Your task to perform on an android device: install app "Messenger Lite" Image 0: 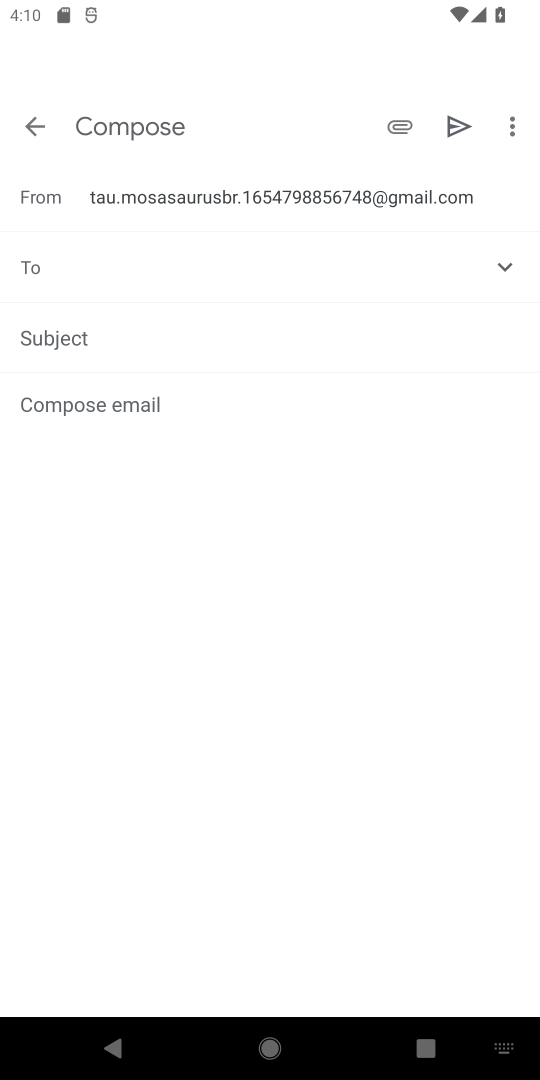
Step 0: press home button
Your task to perform on an android device: install app "Messenger Lite" Image 1: 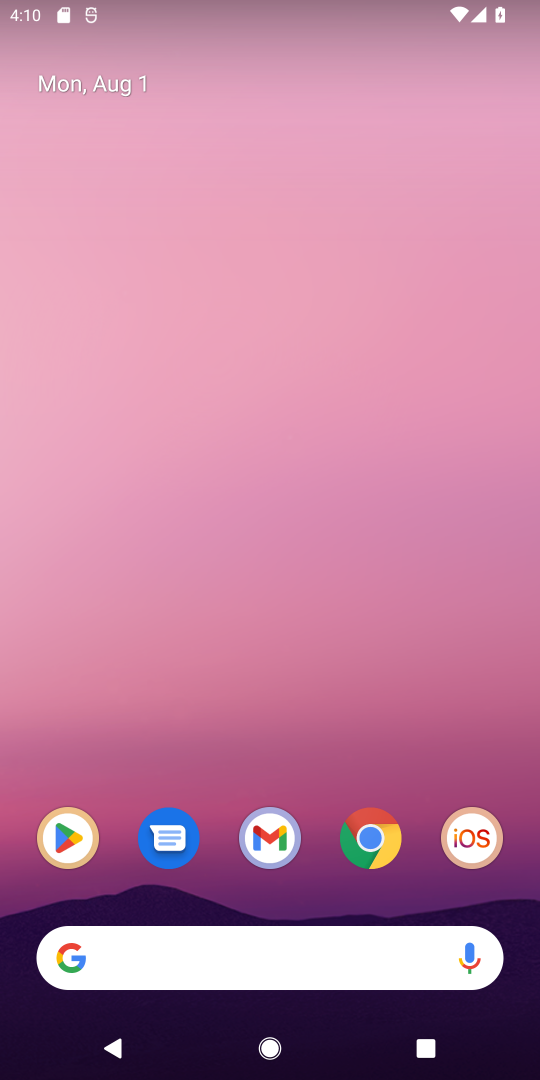
Step 1: click (76, 850)
Your task to perform on an android device: install app "Messenger Lite" Image 2: 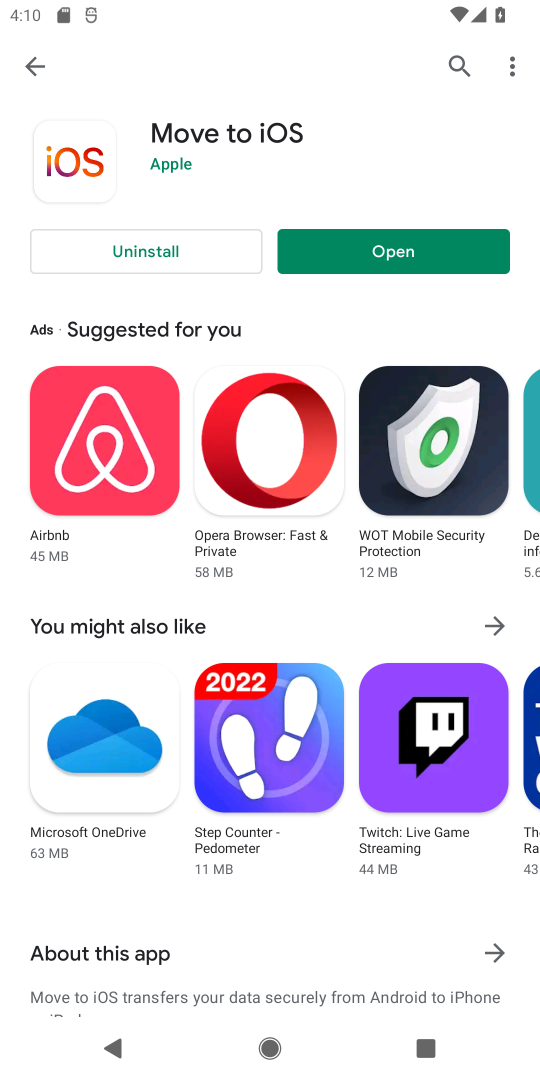
Step 2: click (437, 61)
Your task to perform on an android device: install app "Messenger Lite" Image 3: 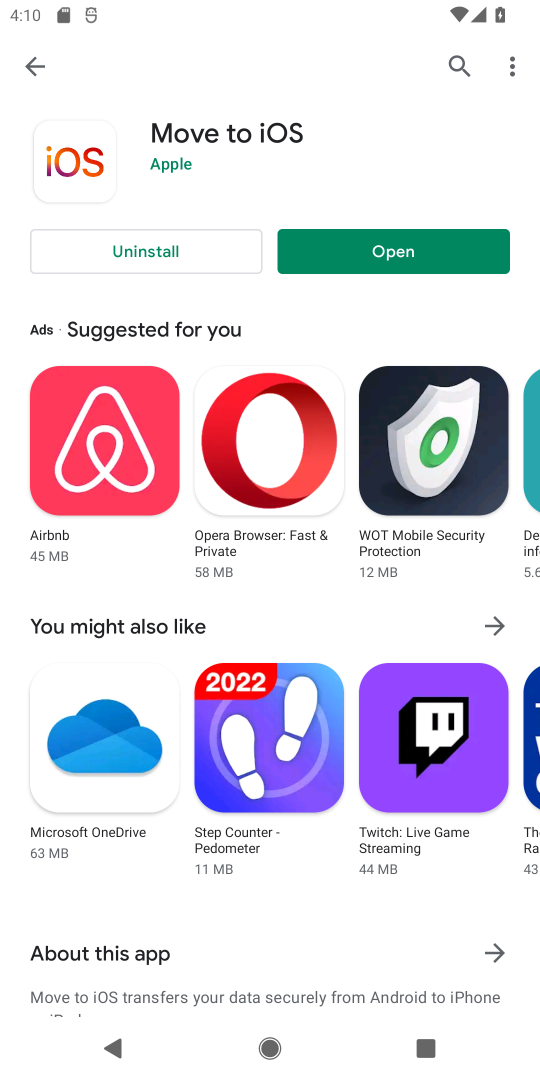
Step 3: click (455, 78)
Your task to perform on an android device: install app "Messenger Lite" Image 4: 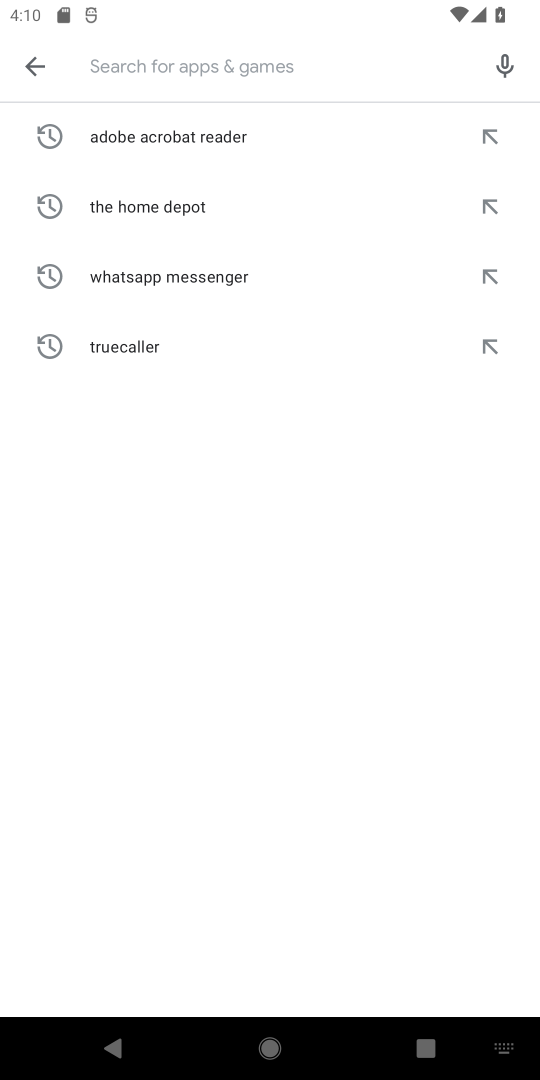
Step 4: type "Messenger Lite"
Your task to perform on an android device: install app "Messenger Lite" Image 5: 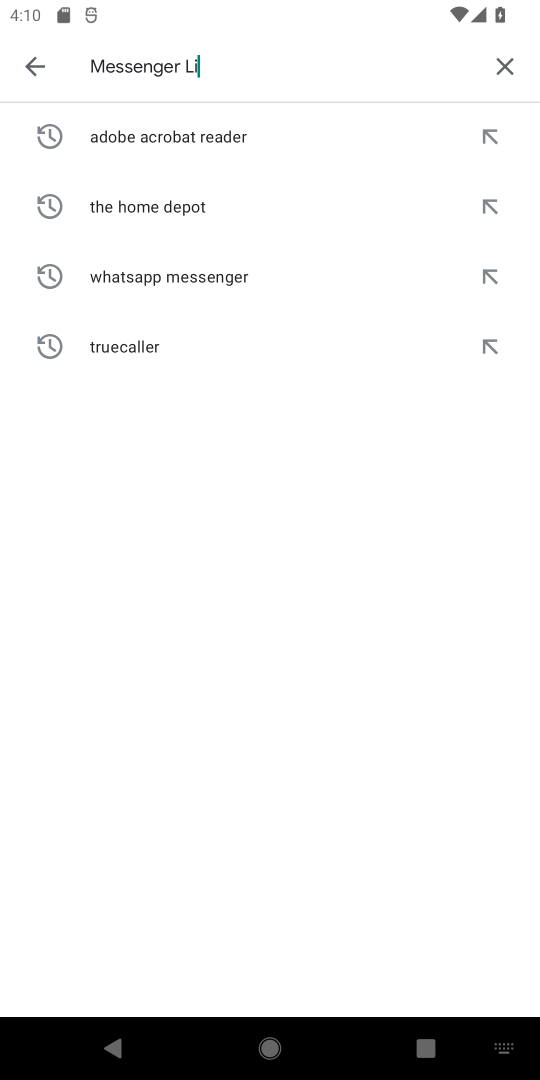
Step 5: type ""
Your task to perform on an android device: install app "Messenger Lite" Image 6: 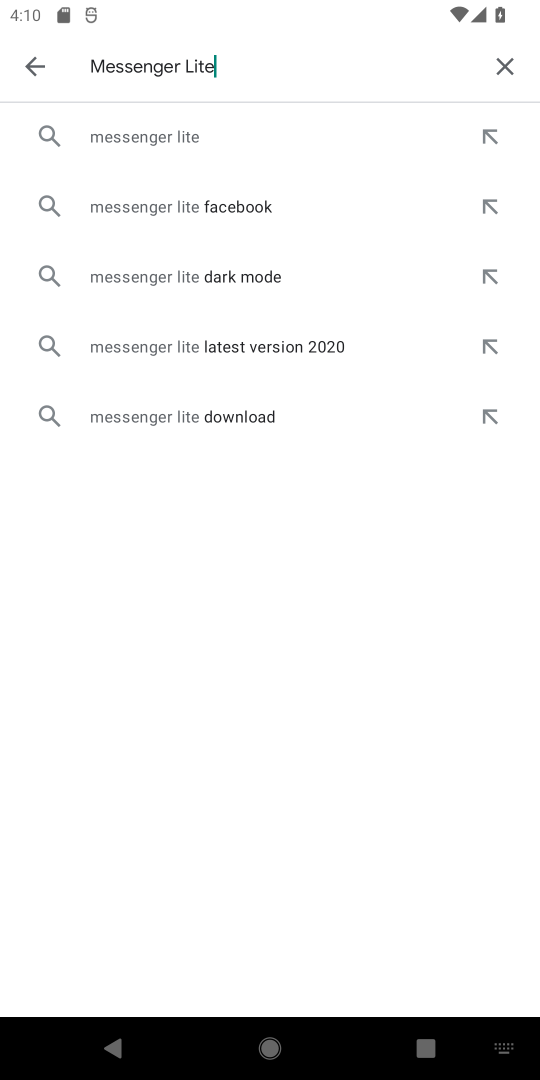
Step 6: click (229, 139)
Your task to perform on an android device: install app "Messenger Lite" Image 7: 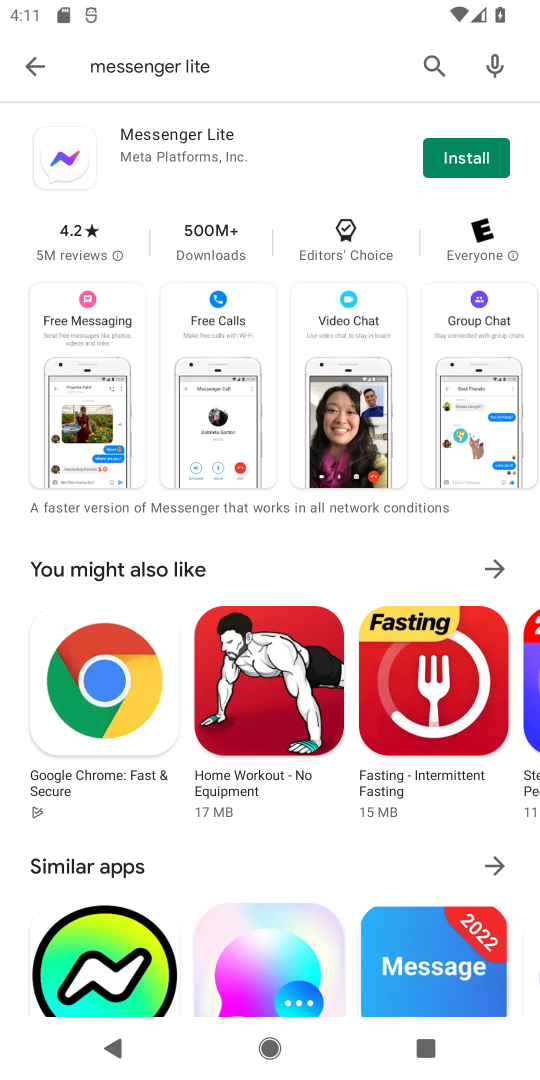
Step 7: click (456, 166)
Your task to perform on an android device: install app "Messenger Lite" Image 8: 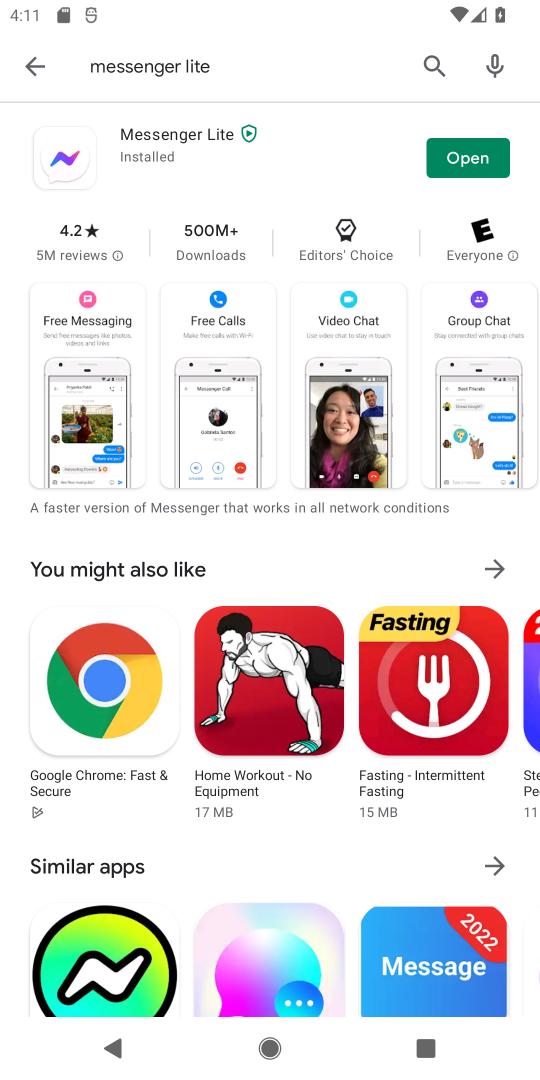
Step 8: task complete